Your task to perform on an android device: Search for the new nintendo switch on Walmart. Image 0: 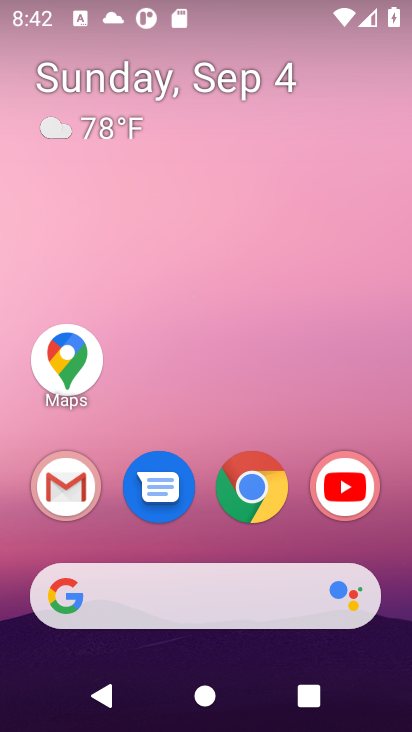
Step 0: click (187, 612)
Your task to perform on an android device: Search for the new nintendo switch on Walmart. Image 1: 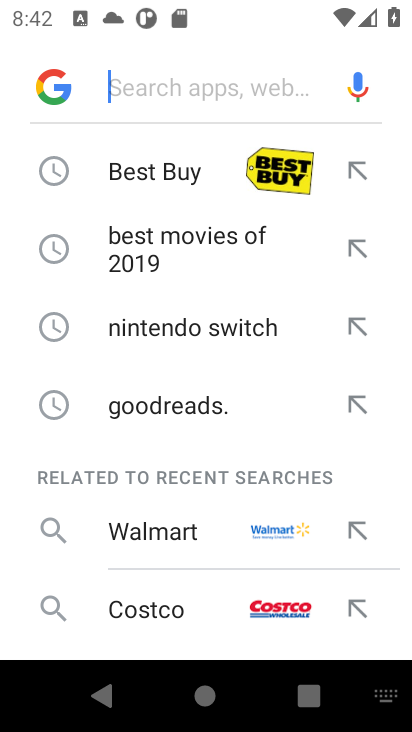
Step 1: type "walmart"
Your task to perform on an android device: Search for the new nintendo switch on Walmart. Image 2: 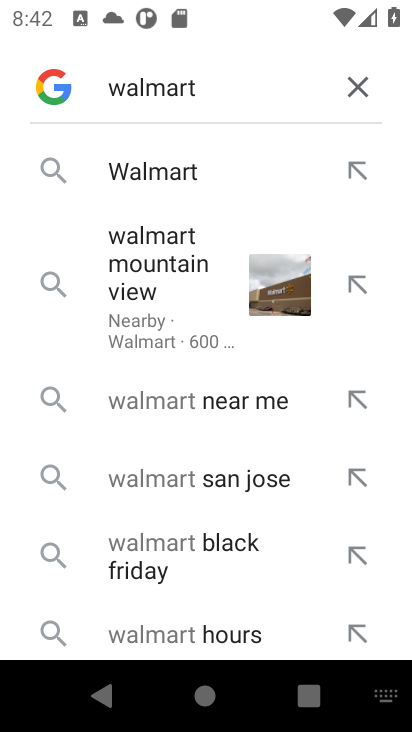
Step 2: click (290, 168)
Your task to perform on an android device: Search for the new nintendo switch on Walmart. Image 3: 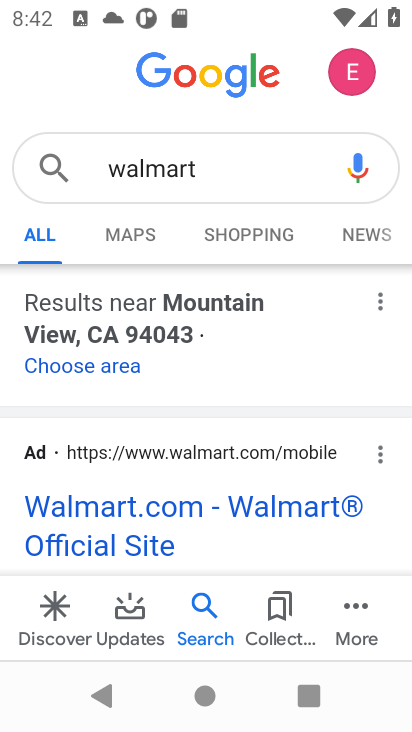
Step 3: click (219, 511)
Your task to perform on an android device: Search for the new nintendo switch on Walmart. Image 4: 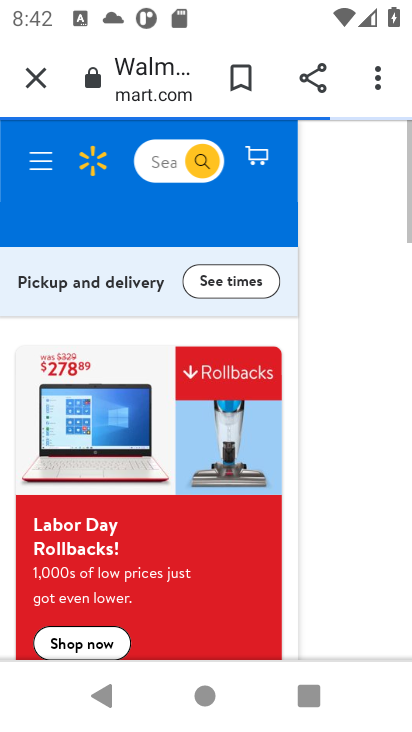
Step 4: click (207, 168)
Your task to perform on an android device: Search for the new nintendo switch on Walmart. Image 5: 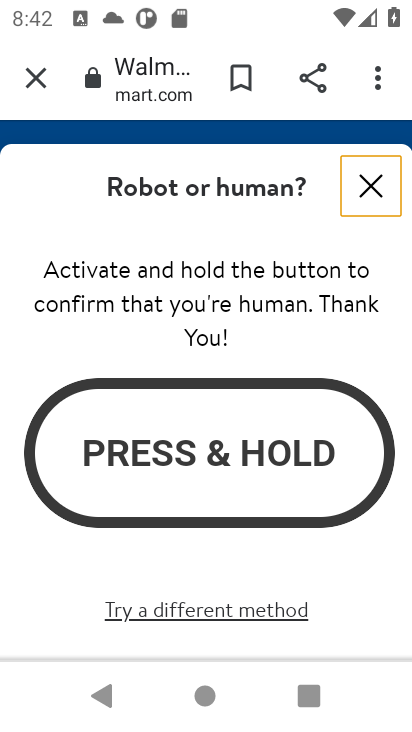
Step 5: click (365, 190)
Your task to perform on an android device: Search for the new nintendo switch on Walmart. Image 6: 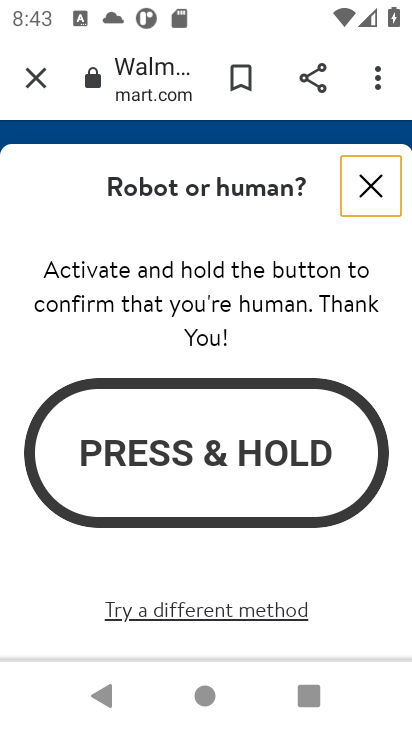
Step 6: click (380, 198)
Your task to perform on an android device: Search for the new nintendo switch on Walmart. Image 7: 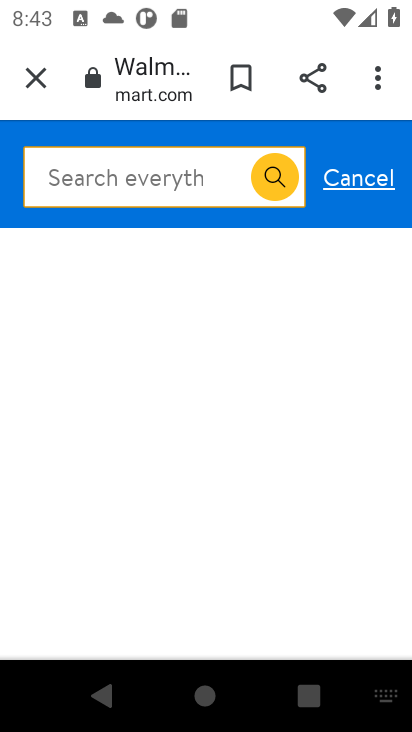
Step 7: type "nintendo switch"
Your task to perform on an android device: Search for the new nintendo switch on Walmart. Image 8: 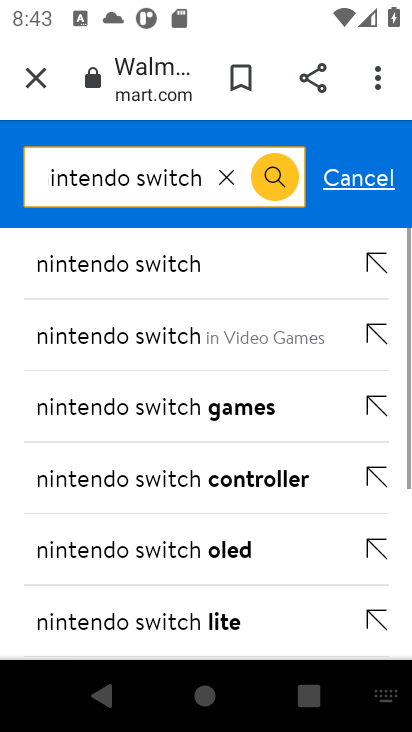
Step 8: click (195, 260)
Your task to perform on an android device: Search for the new nintendo switch on Walmart. Image 9: 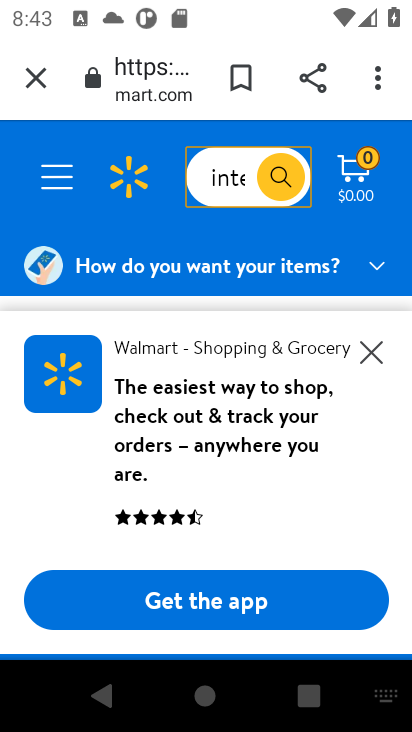
Step 9: click (385, 362)
Your task to perform on an android device: Search for the new nintendo switch on Walmart. Image 10: 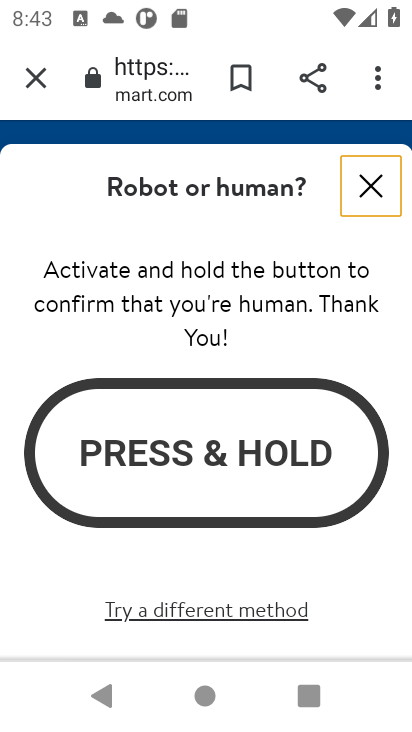
Step 10: click (374, 178)
Your task to perform on an android device: Search for the new nintendo switch on Walmart. Image 11: 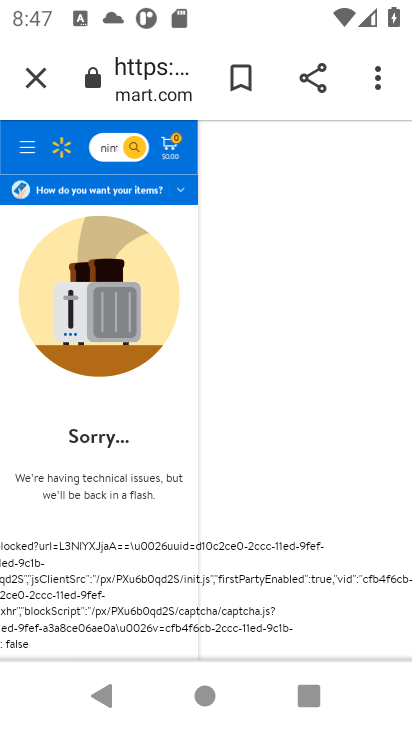
Step 11: task complete